Your task to perform on an android device: Open Reddit.com Image 0: 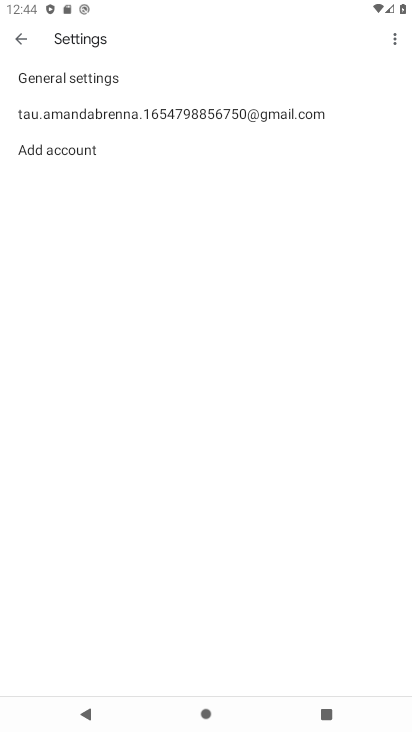
Step 0: press home button
Your task to perform on an android device: Open Reddit.com Image 1: 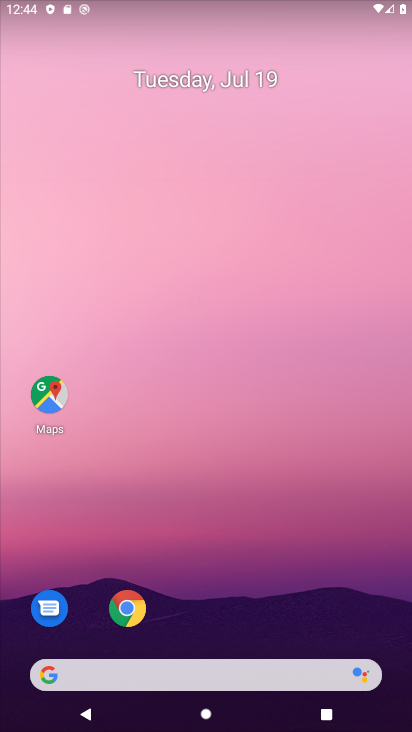
Step 1: click (120, 678)
Your task to perform on an android device: Open Reddit.com Image 2: 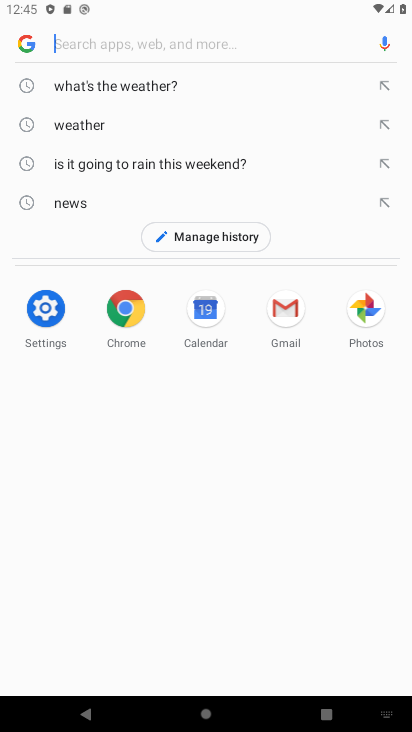
Step 2: type "Reddit.com"
Your task to perform on an android device: Open Reddit.com Image 3: 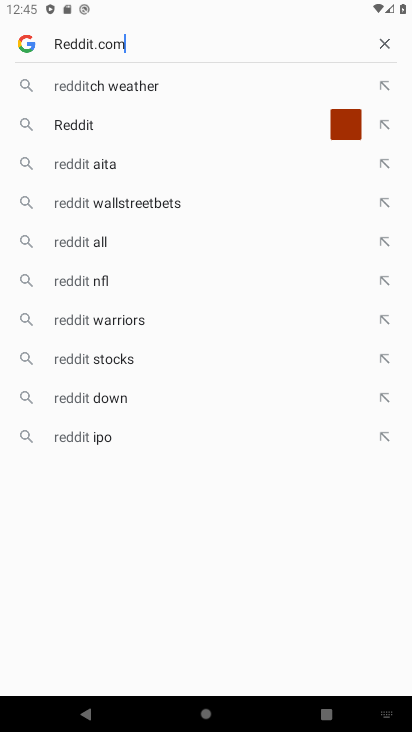
Step 3: press enter
Your task to perform on an android device: Open Reddit.com Image 4: 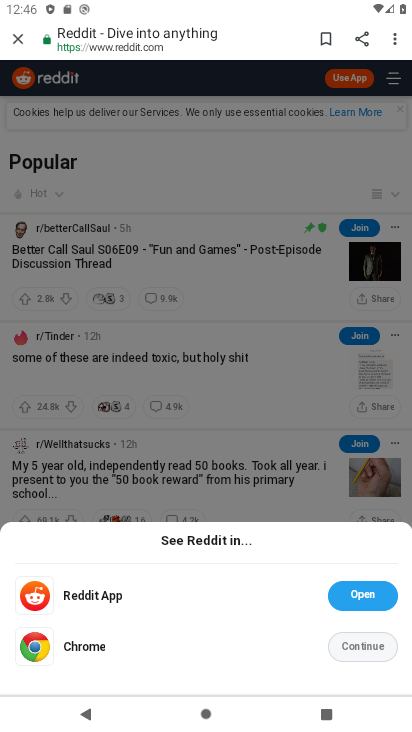
Step 4: task complete